Your task to perform on an android device: Go to display settings Image 0: 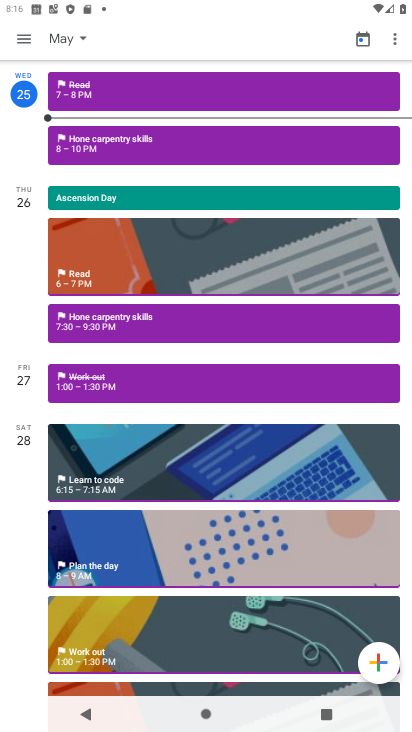
Step 0: press home button
Your task to perform on an android device: Go to display settings Image 1: 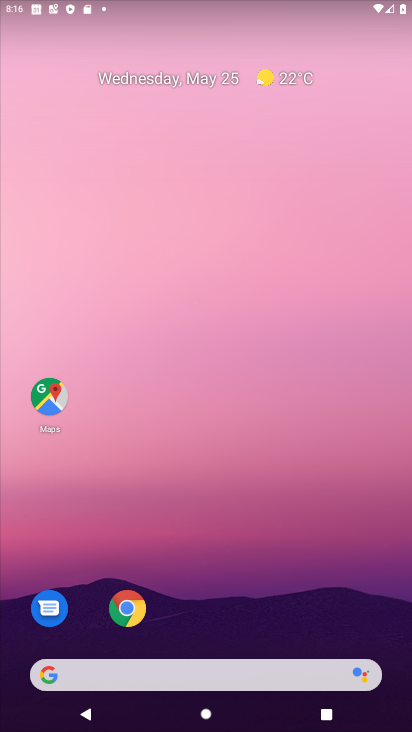
Step 1: drag from (231, 578) to (248, 108)
Your task to perform on an android device: Go to display settings Image 2: 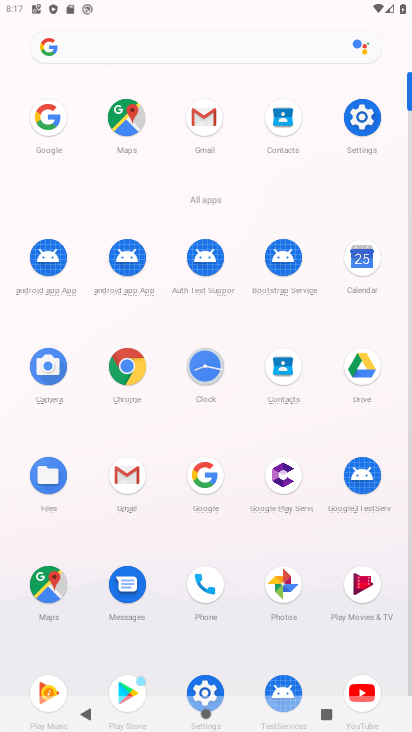
Step 2: click (362, 117)
Your task to perform on an android device: Go to display settings Image 3: 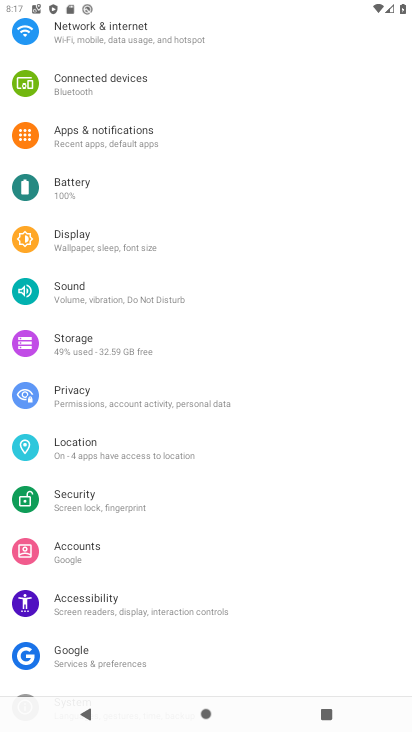
Step 3: drag from (135, 258) to (117, 336)
Your task to perform on an android device: Go to display settings Image 4: 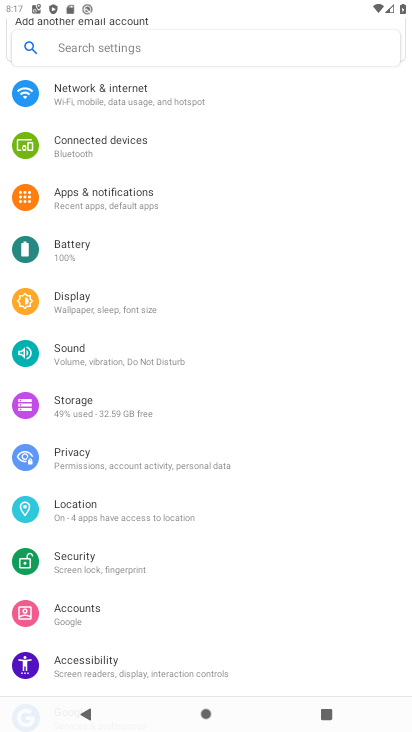
Step 4: click (92, 308)
Your task to perform on an android device: Go to display settings Image 5: 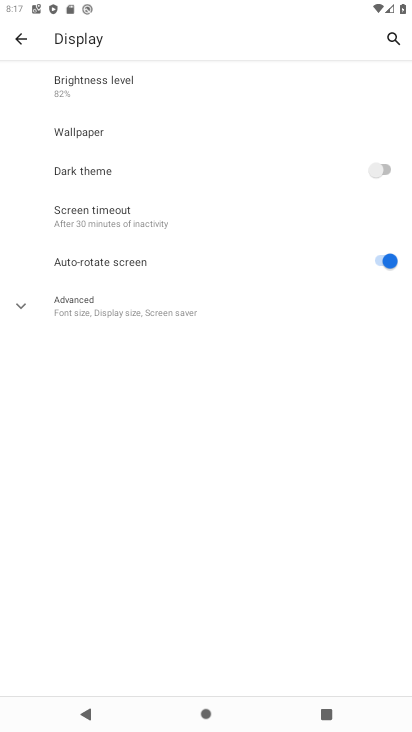
Step 5: task complete